Your task to perform on an android device: toggle notifications settings in the gmail app Image 0: 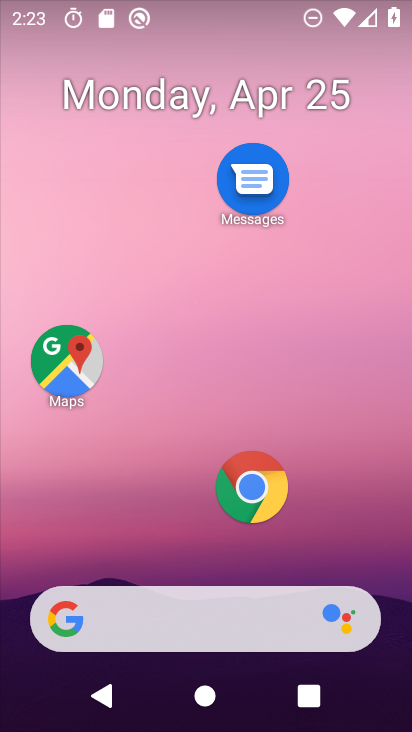
Step 0: drag from (160, 546) to (206, 62)
Your task to perform on an android device: toggle notifications settings in the gmail app Image 1: 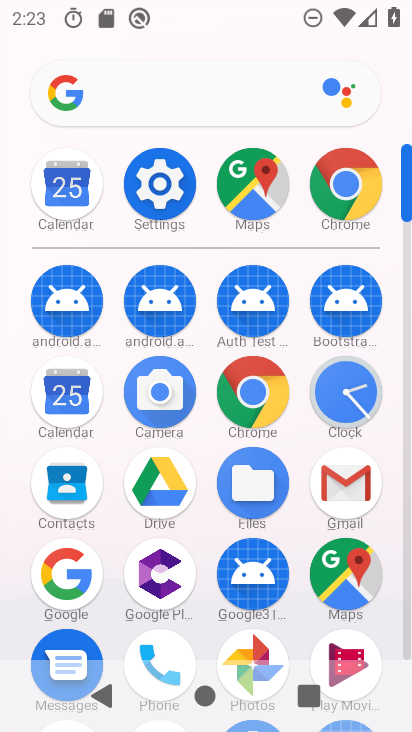
Step 1: click (346, 483)
Your task to perform on an android device: toggle notifications settings in the gmail app Image 2: 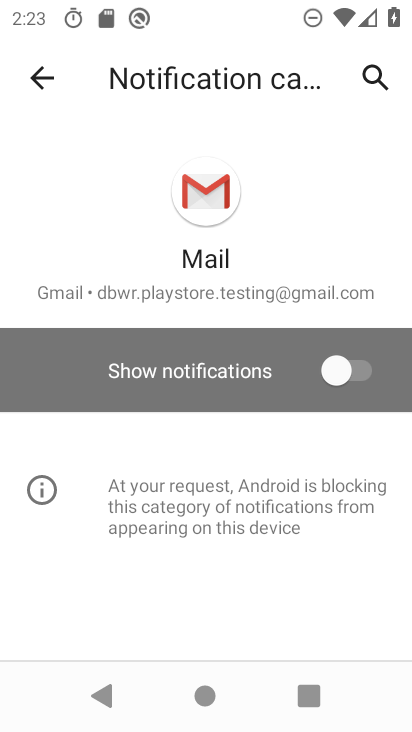
Step 2: click (353, 365)
Your task to perform on an android device: toggle notifications settings in the gmail app Image 3: 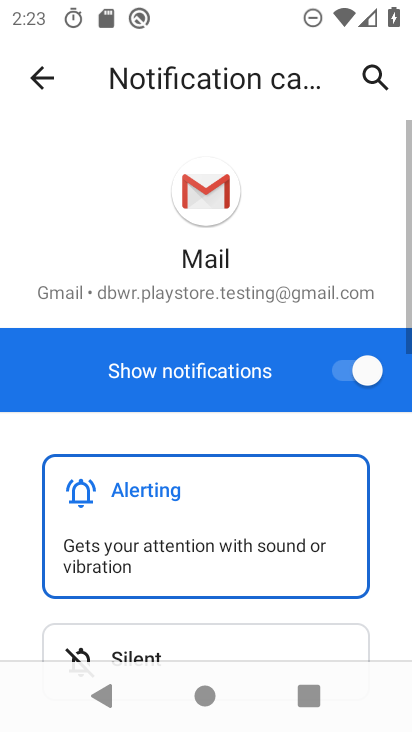
Step 3: task complete